Your task to perform on an android device: Open Google Chrome Image 0: 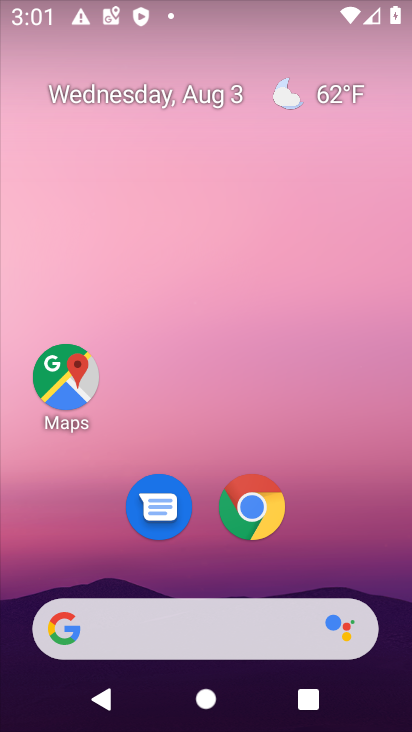
Step 0: click (260, 513)
Your task to perform on an android device: Open Google Chrome Image 1: 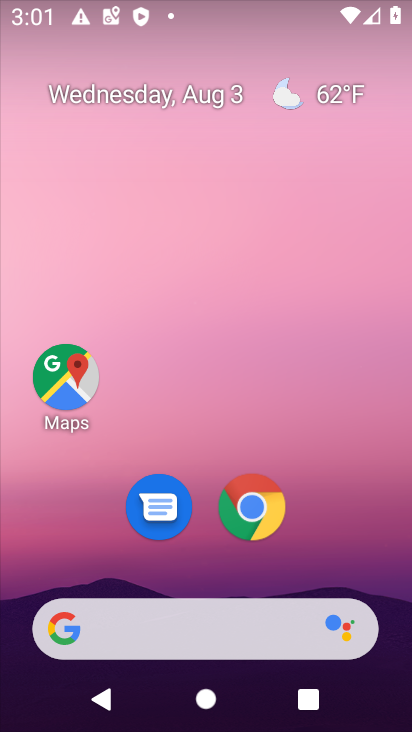
Step 1: click (260, 513)
Your task to perform on an android device: Open Google Chrome Image 2: 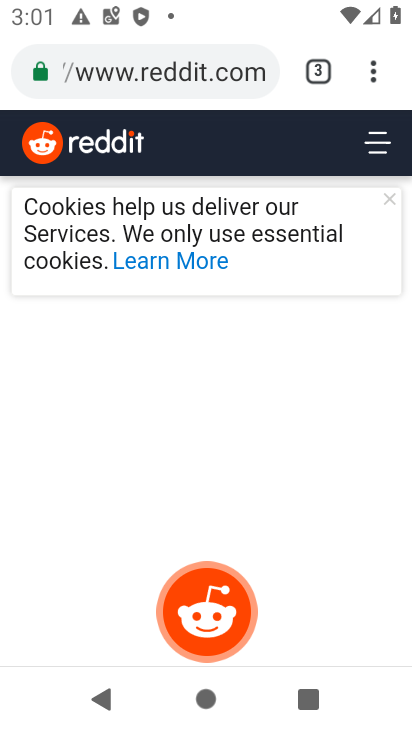
Step 2: task complete